Your task to perform on an android device: Open sound settings Image 0: 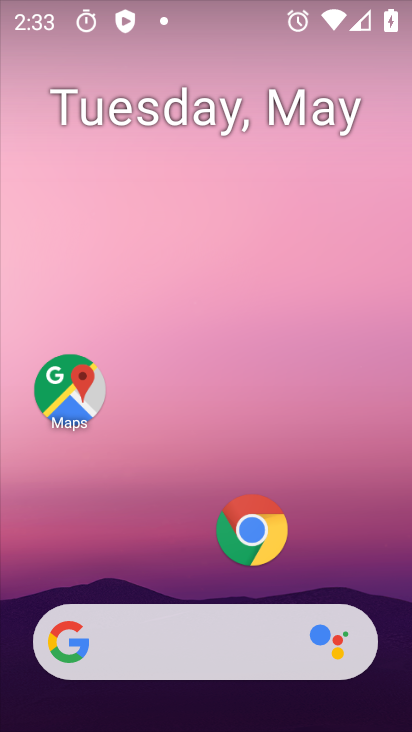
Step 0: drag from (223, 609) to (225, 0)
Your task to perform on an android device: Open sound settings Image 1: 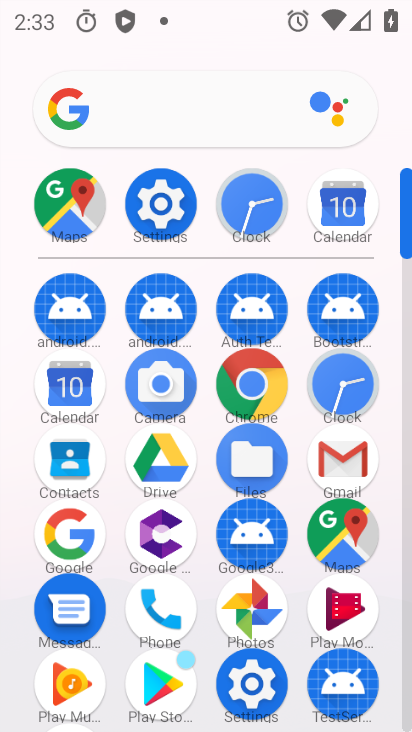
Step 1: click (172, 221)
Your task to perform on an android device: Open sound settings Image 2: 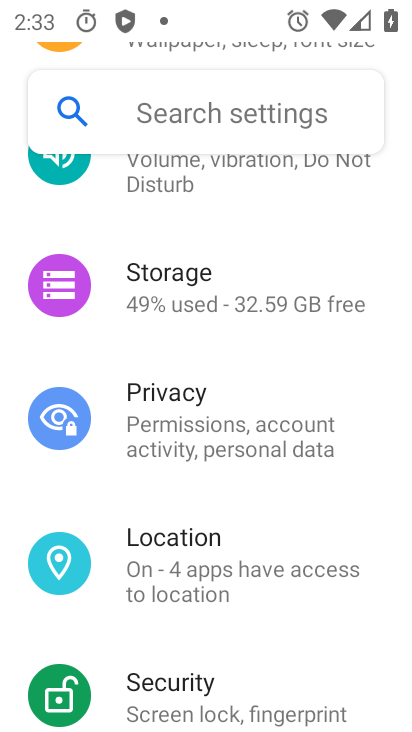
Step 2: drag from (143, 248) to (155, 529)
Your task to perform on an android device: Open sound settings Image 3: 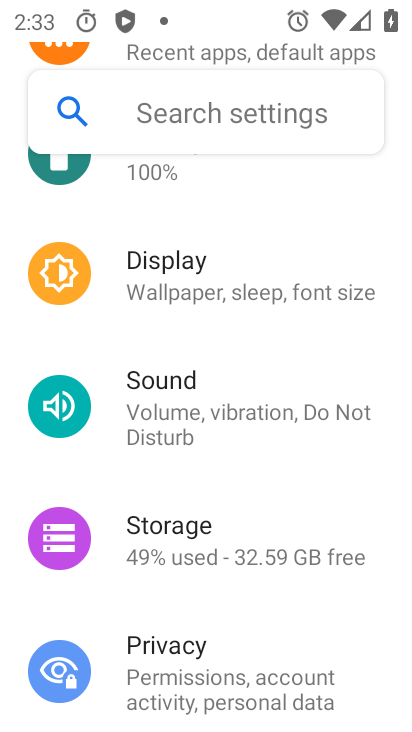
Step 3: click (167, 411)
Your task to perform on an android device: Open sound settings Image 4: 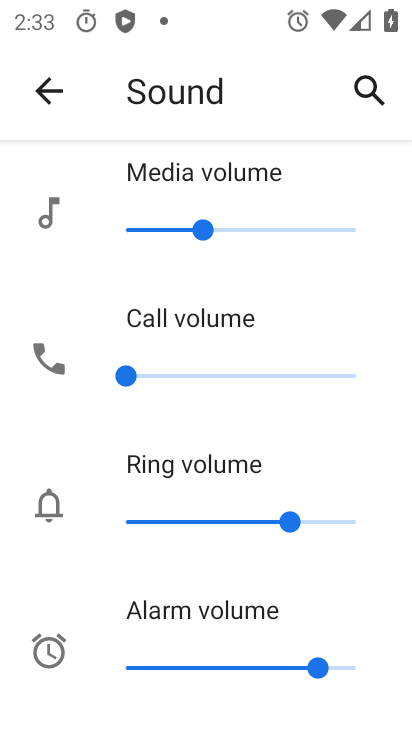
Step 4: task complete